Your task to perform on an android device: Go to Reddit.com Image 0: 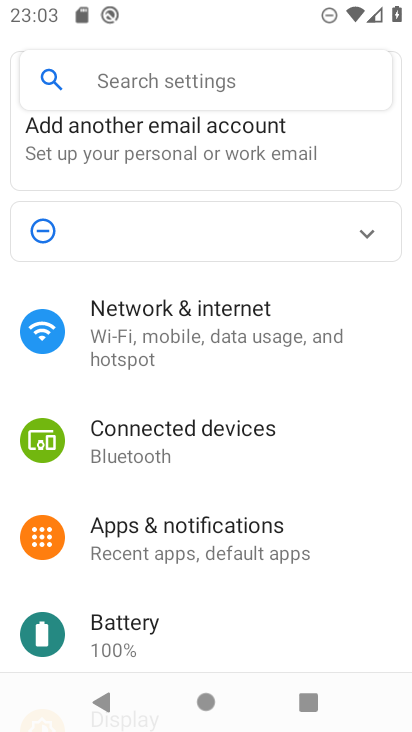
Step 0: press home button
Your task to perform on an android device: Go to Reddit.com Image 1: 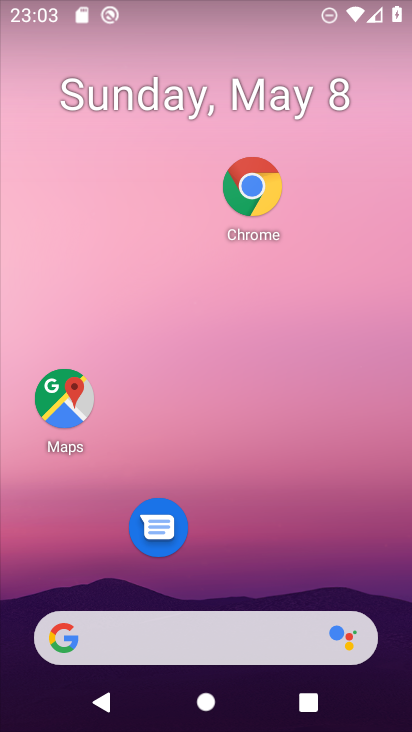
Step 1: drag from (280, 544) to (322, 260)
Your task to perform on an android device: Go to Reddit.com Image 2: 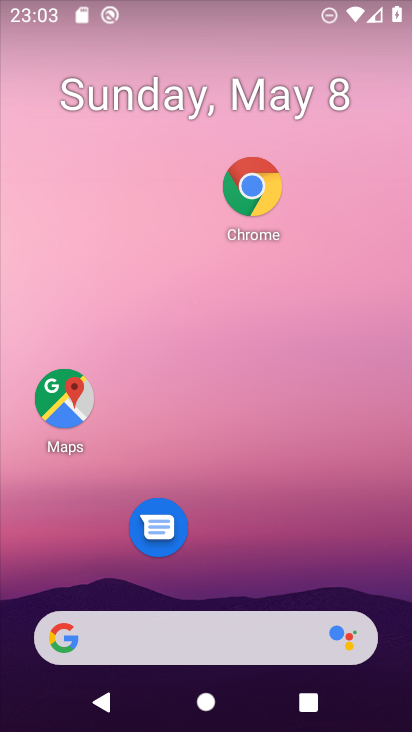
Step 2: click (239, 550)
Your task to perform on an android device: Go to Reddit.com Image 3: 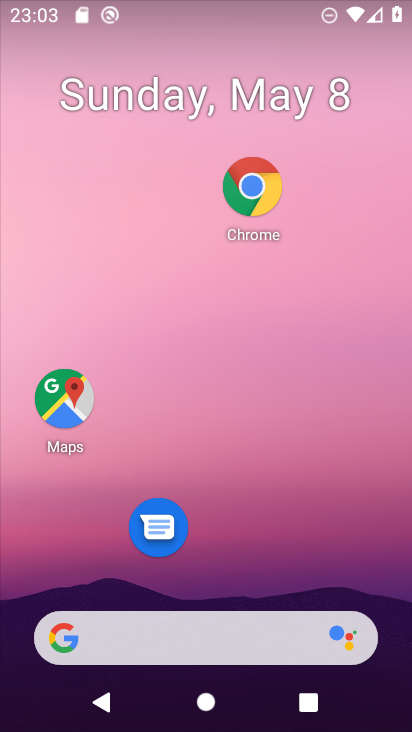
Step 3: drag from (288, 550) to (304, 278)
Your task to perform on an android device: Go to Reddit.com Image 4: 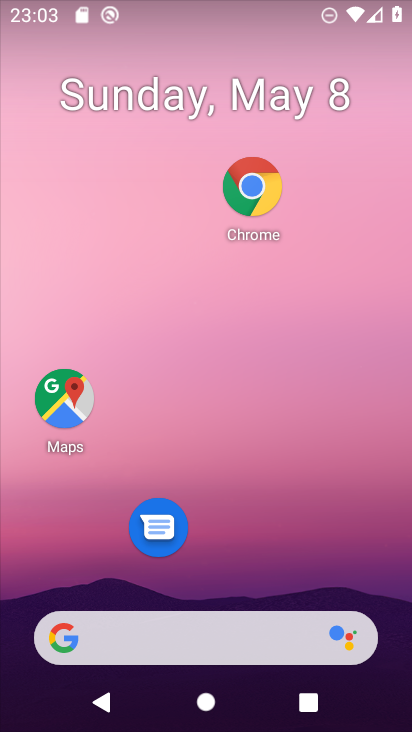
Step 4: drag from (259, 571) to (265, 279)
Your task to perform on an android device: Go to Reddit.com Image 5: 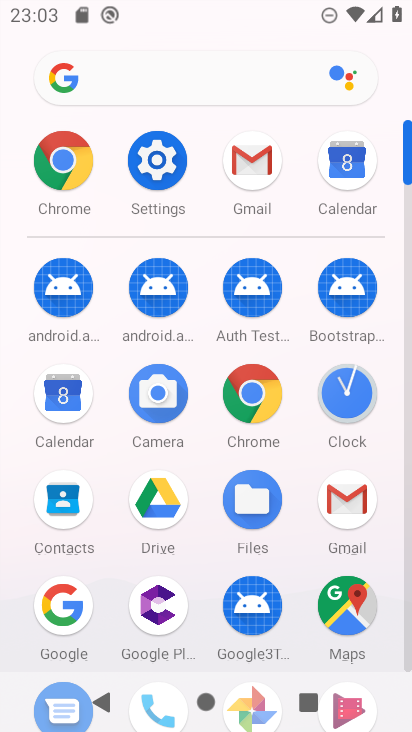
Step 5: click (248, 380)
Your task to perform on an android device: Go to Reddit.com Image 6: 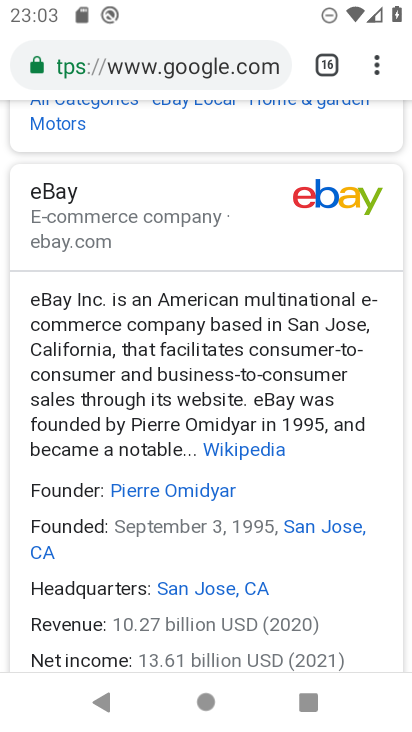
Step 6: click (359, 68)
Your task to perform on an android device: Go to Reddit.com Image 7: 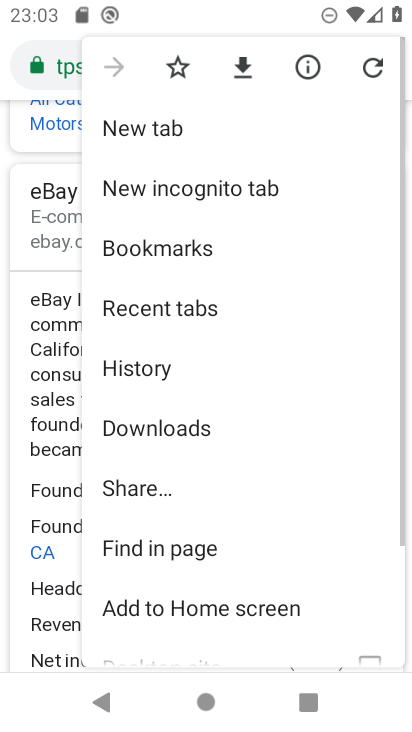
Step 7: click (181, 130)
Your task to perform on an android device: Go to Reddit.com Image 8: 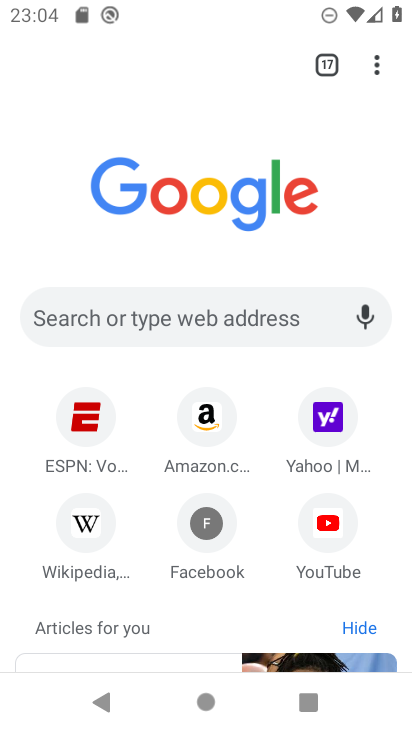
Step 8: click (245, 305)
Your task to perform on an android device: Go to Reddit.com Image 9: 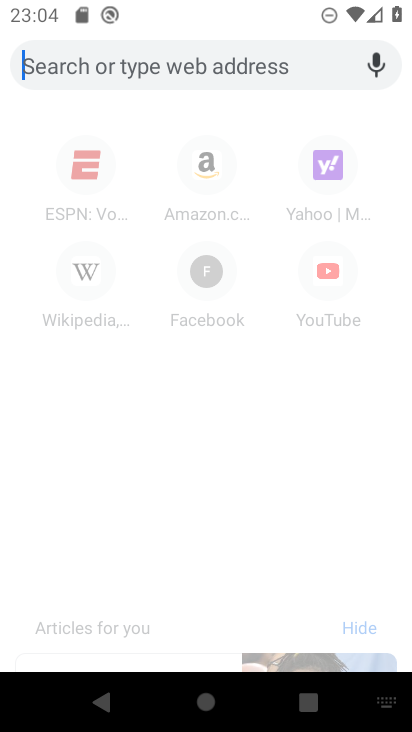
Step 9: type " Reddit.com"
Your task to perform on an android device: Go to Reddit.com Image 10: 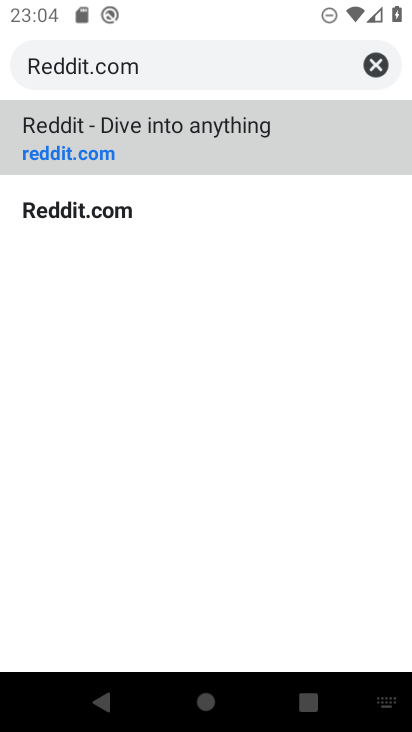
Step 10: click (58, 197)
Your task to perform on an android device: Go to Reddit.com Image 11: 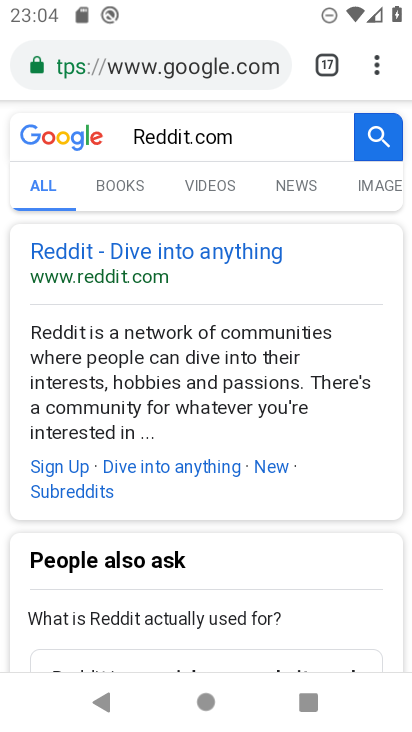
Step 11: task complete